Your task to perform on an android device: turn off notifications in google photos Image 0: 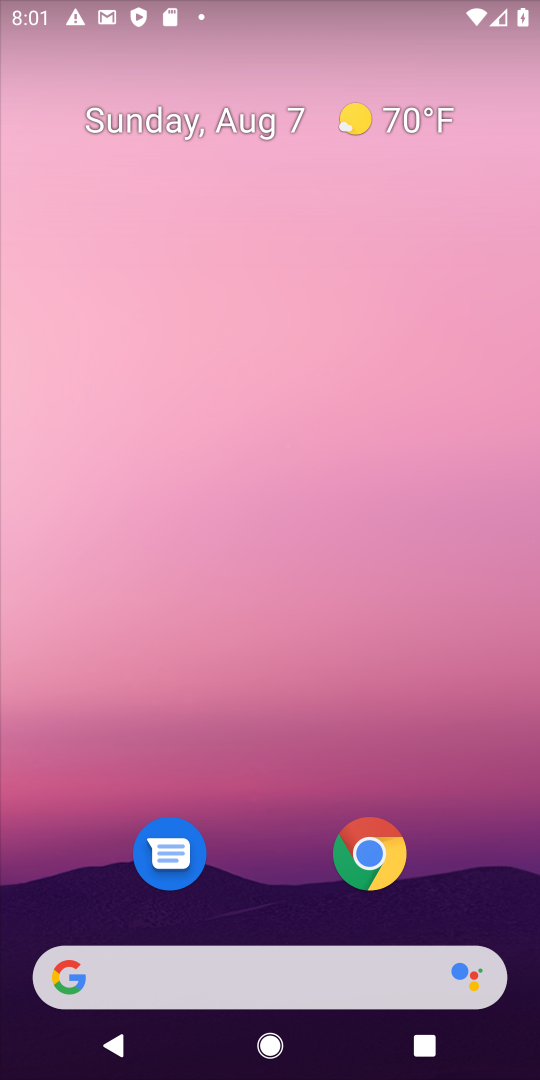
Step 0: drag from (353, 922) to (422, 120)
Your task to perform on an android device: turn off notifications in google photos Image 1: 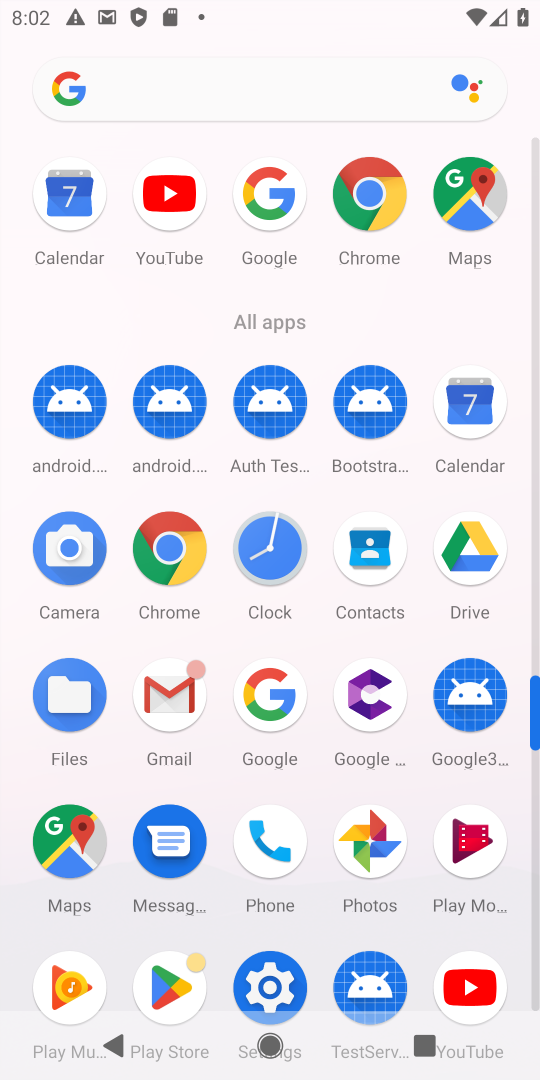
Step 1: click (383, 852)
Your task to perform on an android device: turn off notifications in google photos Image 2: 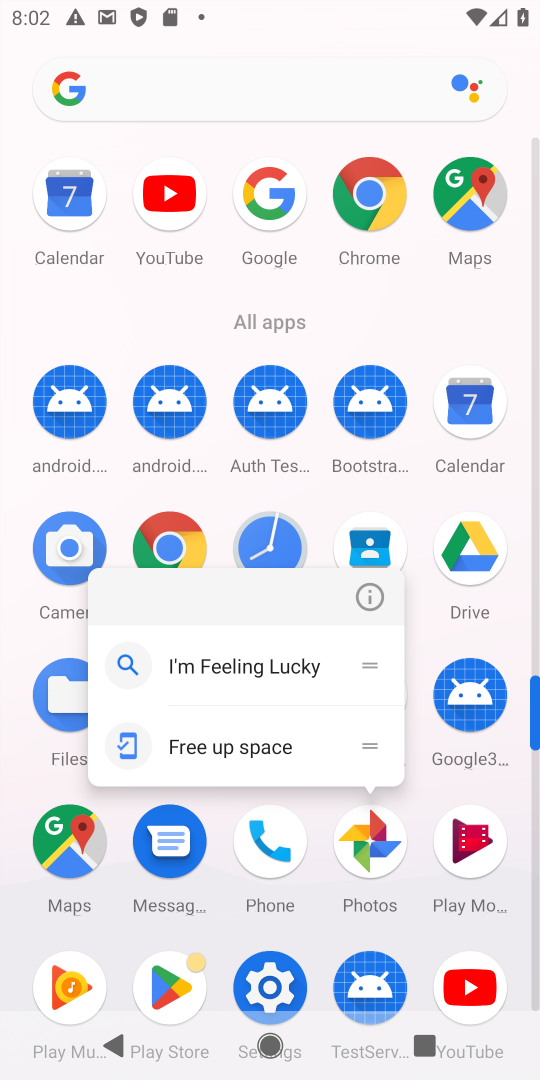
Step 2: click (377, 854)
Your task to perform on an android device: turn off notifications in google photos Image 3: 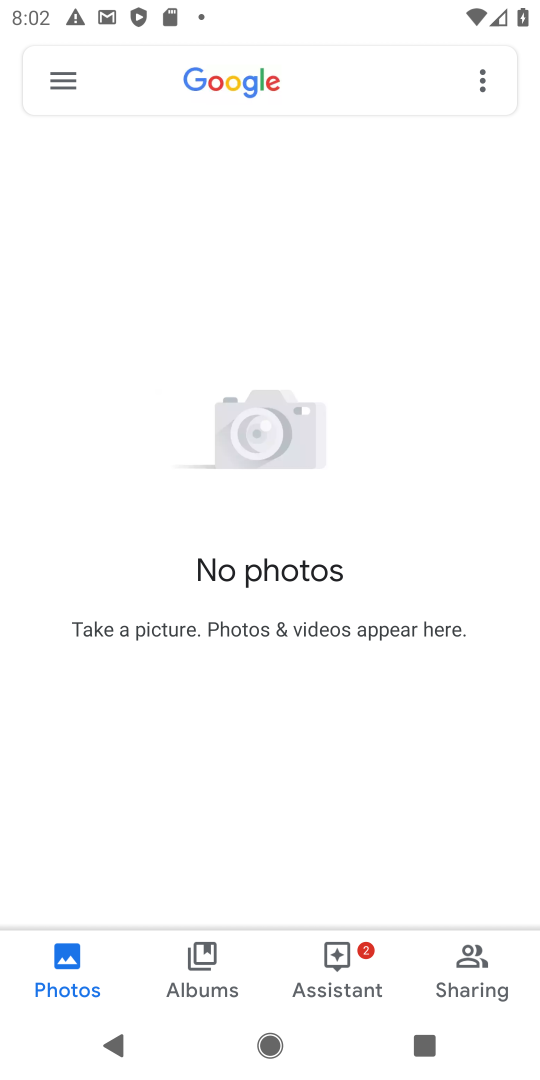
Step 3: click (71, 83)
Your task to perform on an android device: turn off notifications in google photos Image 4: 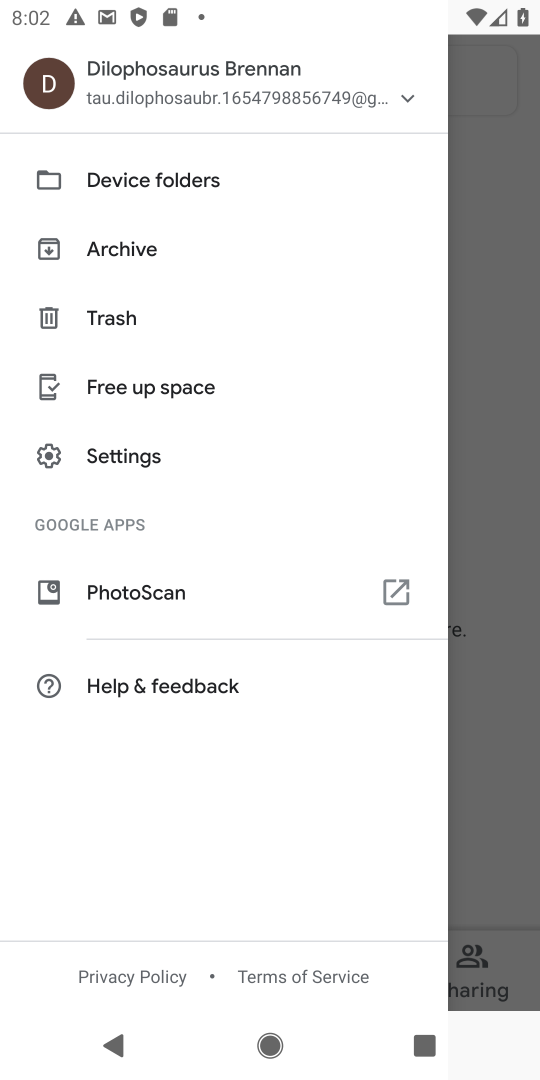
Step 4: click (143, 464)
Your task to perform on an android device: turn off notifications in google photos Image 5: 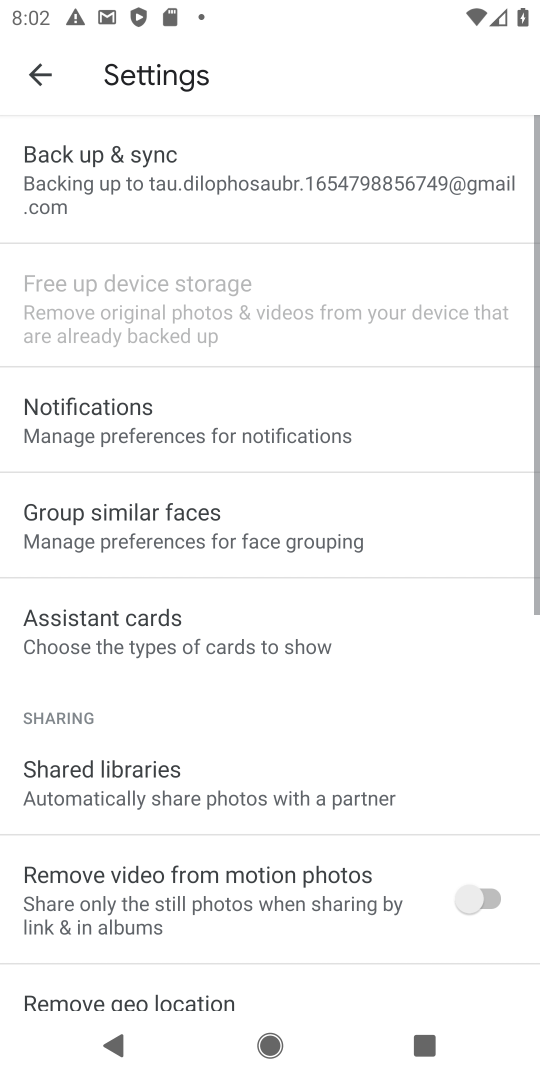
Step 5: click (119, 450)
Your task to perform on an android device: turn off notifications in google photos Image 6: 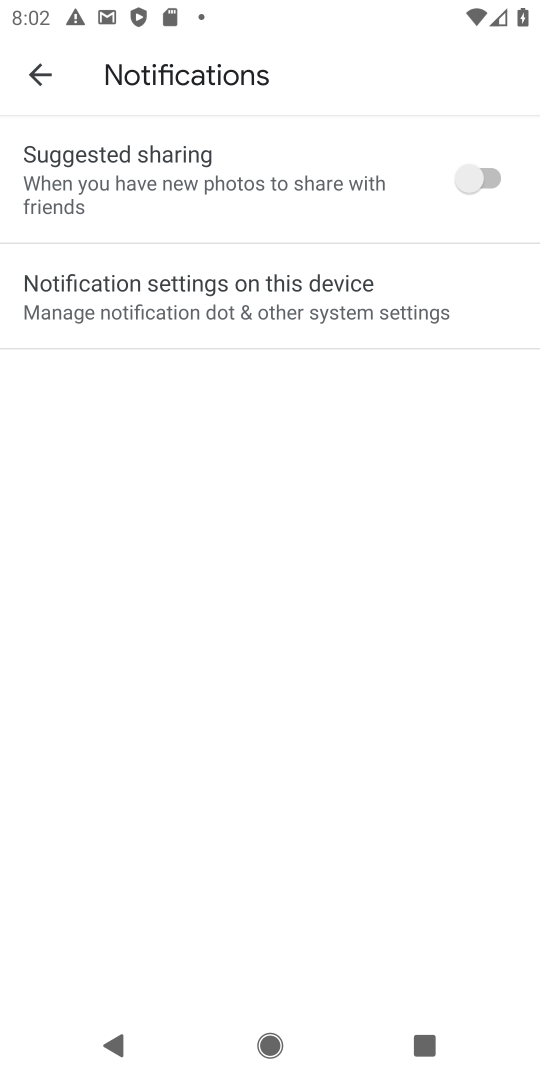
Step 6: click (222, 303)
Your task to perform on an android device: turn off notifications in google photos Image 7: 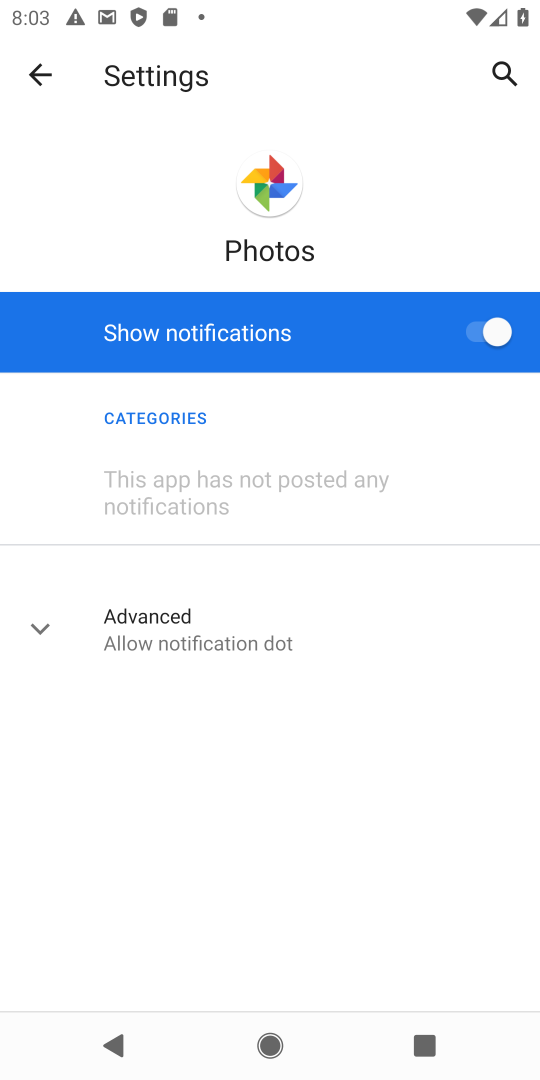
Step 7: click (488, 338)
Your task to perform on an android device: turn off notifications in google photos Image 8: 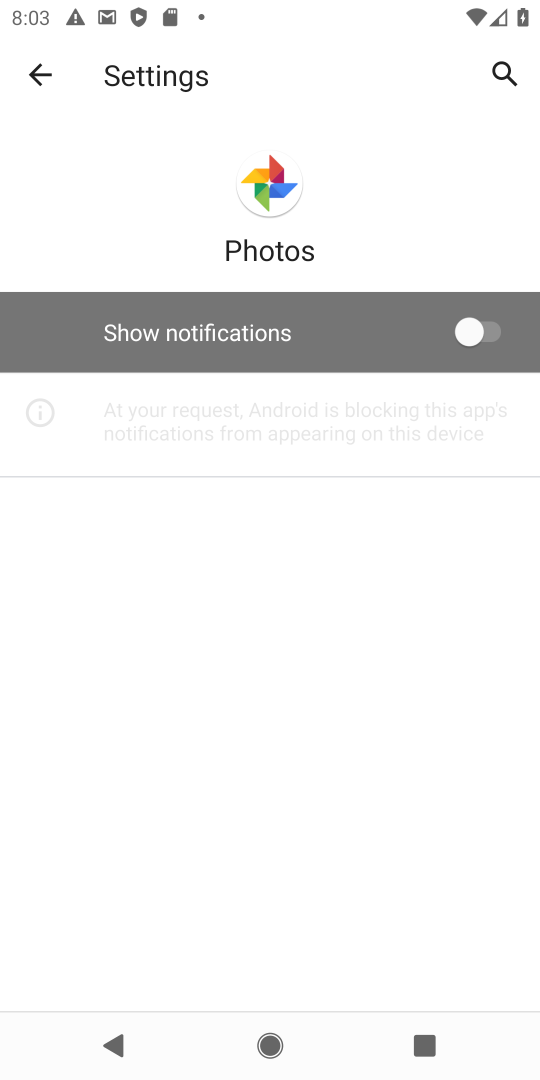
Step 8: task complete